Your task to perform on an android device: turn notification dots on Image 0: 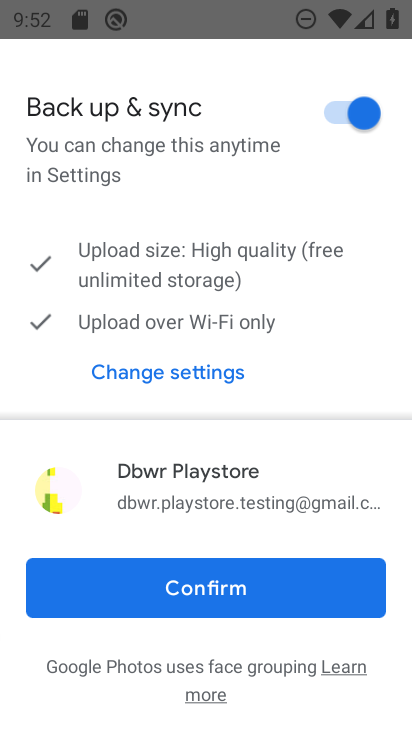
Step 0: press home button
Your task to perform on an android device: turn notification dots on Image 1: 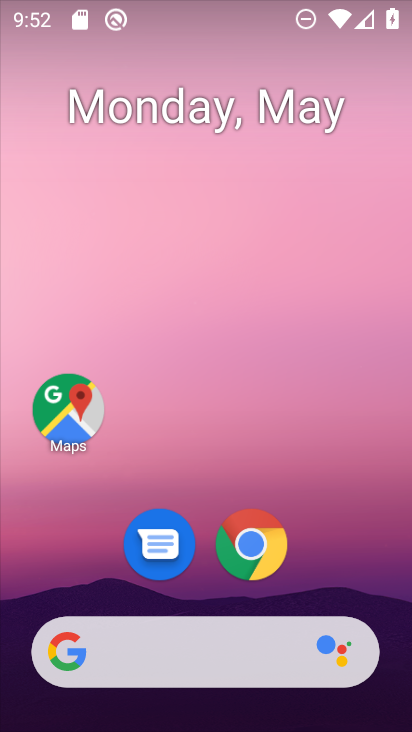
Step 1: drag from (319, 488) to (212, 214)
Your task to perform on an android device: turn notification dots on Image 2: 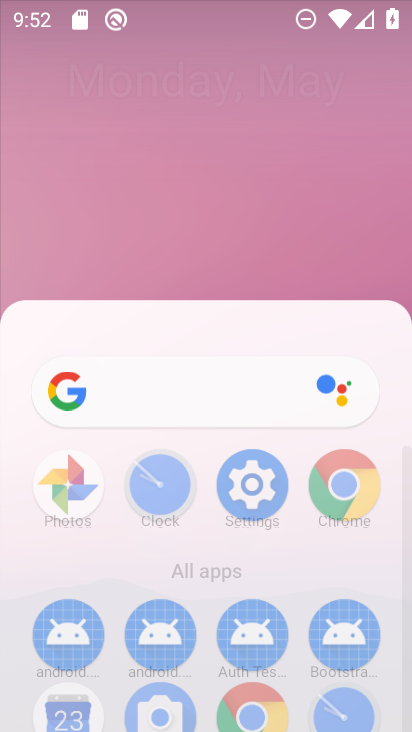
Step 2: click (196, 156)
Your task to perform on an android device: turn notification dots on Image 3: 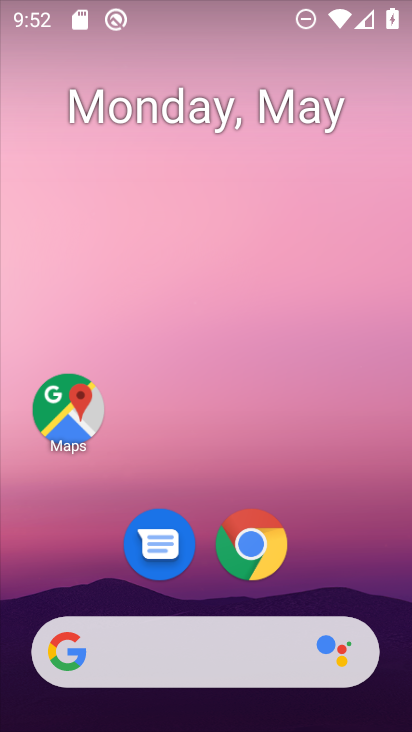
Step 3: drag from (353, 551) to (143, 52)
Your task to perform on an android device: turn notification dots on Image 4: 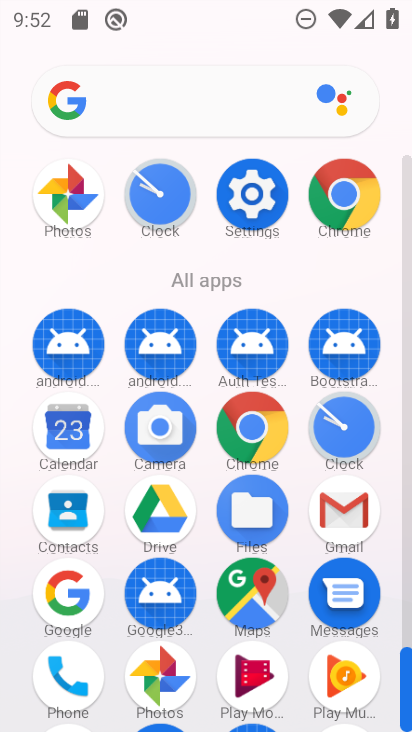
Step 4: click (261, 208)
Your task to perform on an android device: turn notification dots on Image 5: 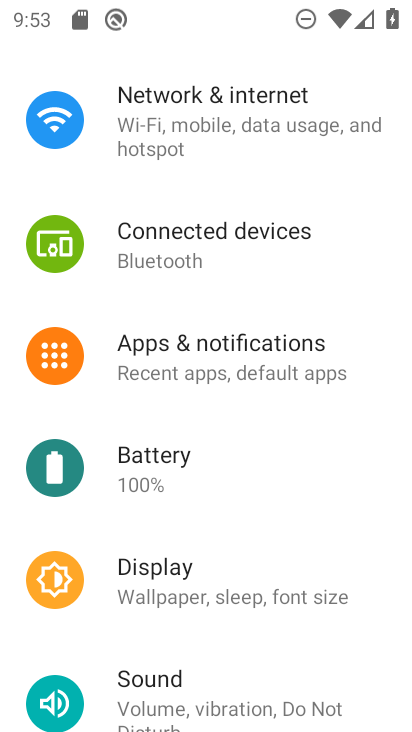
Step 5: click (259, 369)
Your task to perform on an android device: turn notification dots on Image 6: 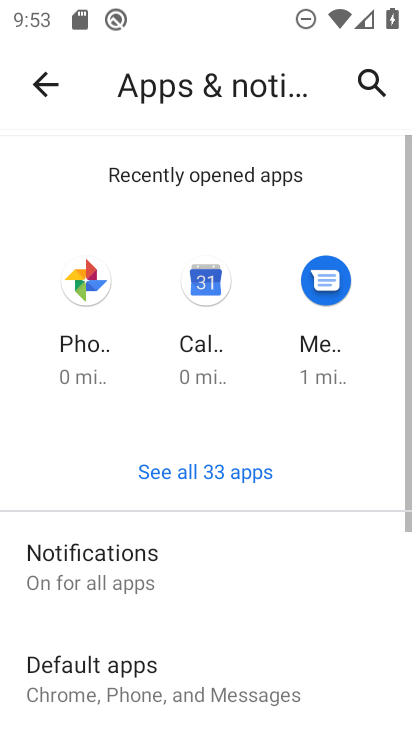
Step 6: click (109, 588)
Your task to perform on an android device: turn notification dots on Image 7: 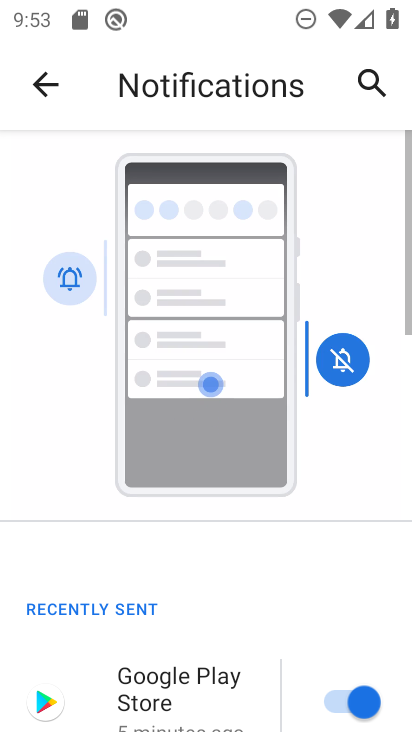
Step 7: drag from (192, 633) to (172, 374)
Your task to perform on an android device: turn notification dots on Image 8: 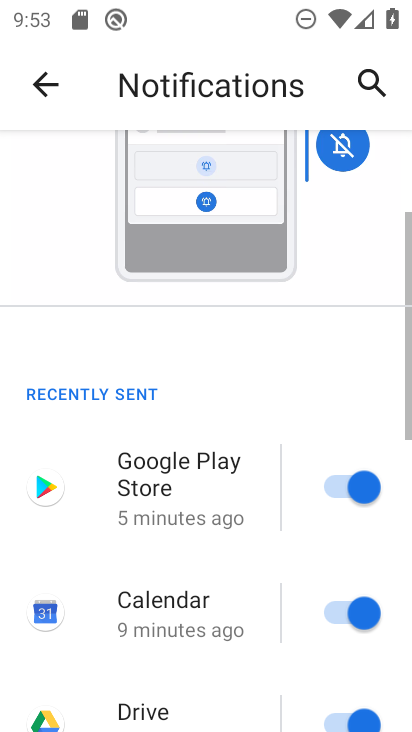
Step 8: drag from (170, 286) to (170, 208)
Your task to perform on an android device: turn notification dots on Image 9: 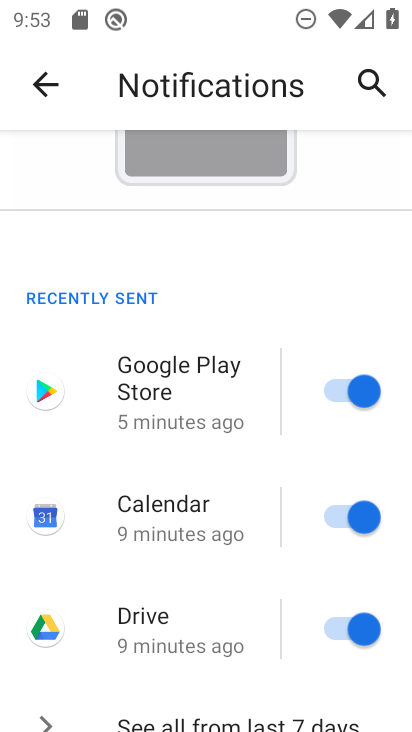
Step 9: drag from (136, 692) to (136, 187)
Your task to perform on an android device: turn notification dots on Image 10: 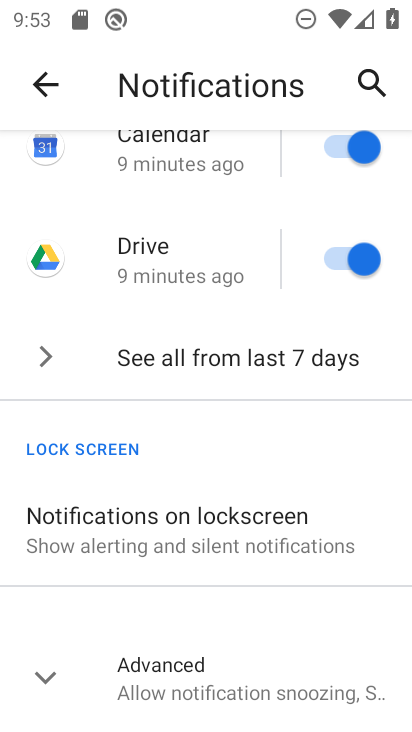
Step 10: click (152, 688)
Your task to perform on an android device: turn notification dots on Image 11: 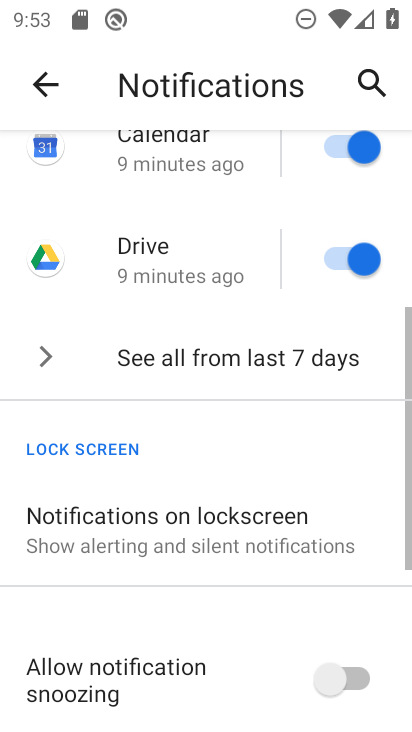
Step 11: task complete